Your task to perform on an android device: turn on data saver in the chrome app Image 0: 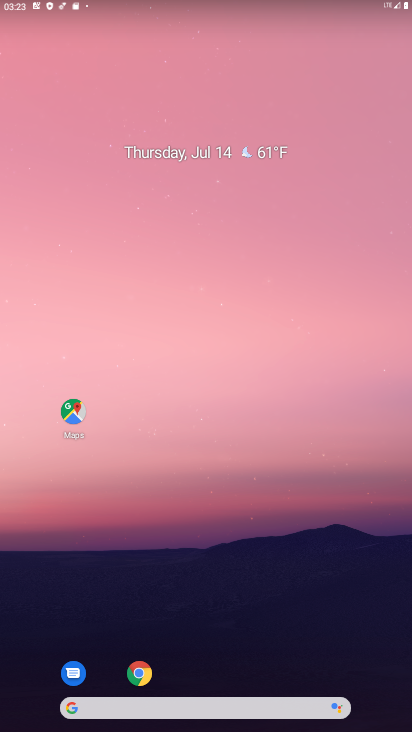
Step 0: click (156, 666)
Your task to perform on an android device: turn on data saver in the chrome app Image 1: 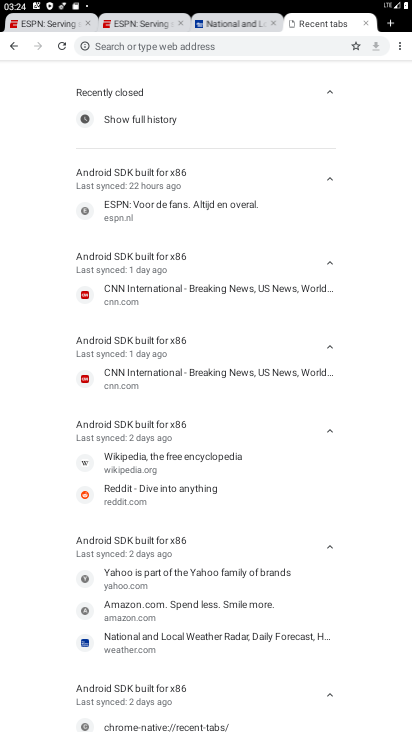
Step 1: click (392, 49)
Your task to perform on an android device: turn on data saver in the chrome app Image 2: 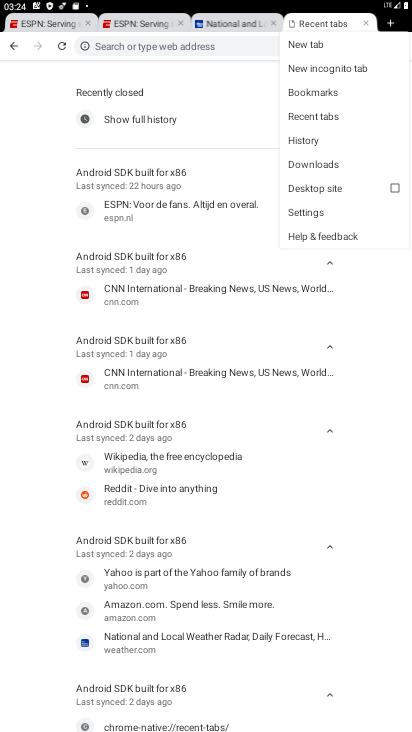
Step 2: click (332, 210)
Your task to perform on an android device: turn on data saver in the chrome app Image 3: 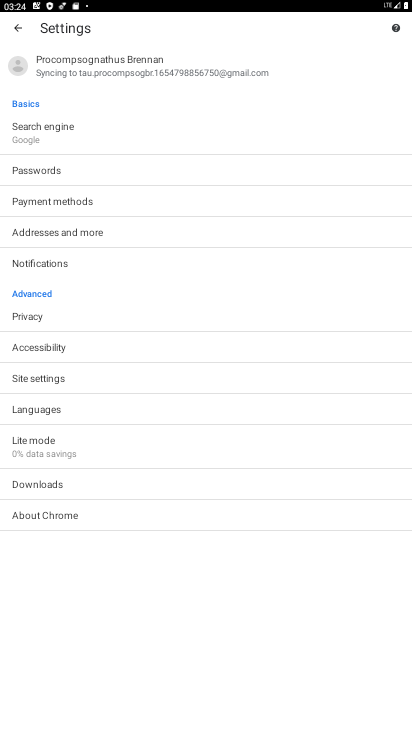
Step 3: click (135, 436)
Your task to perform on an android device: turn on data saver in the chrome app Image 4: 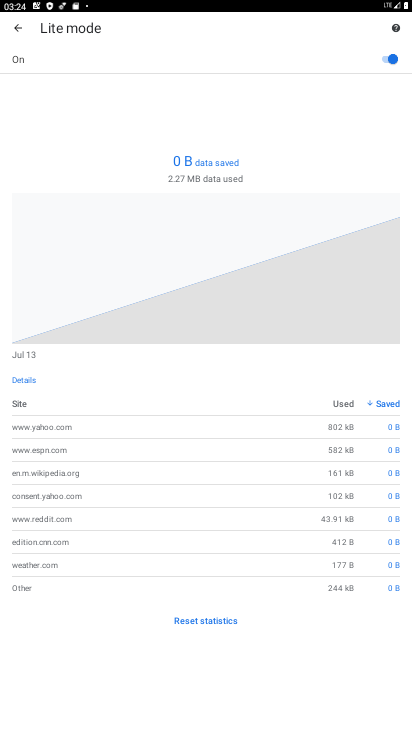
Step 4: click (379, 54)
Your task to perform on an android device: turn on data saver in the chrome app Image 5: 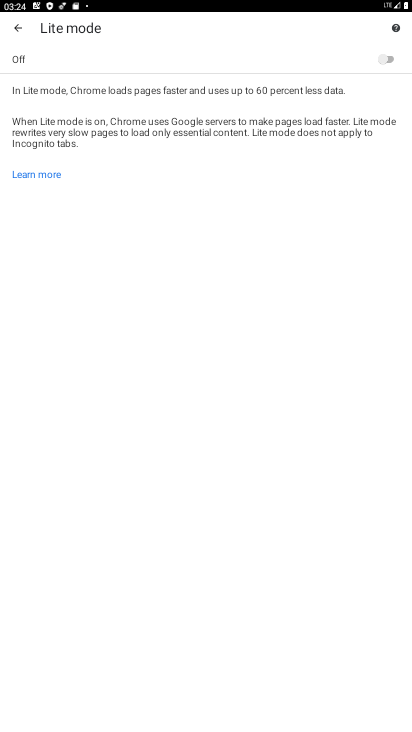
Step 5: task complete